Your task to perform on an android device: check the backup settings in the google photos Image 0: 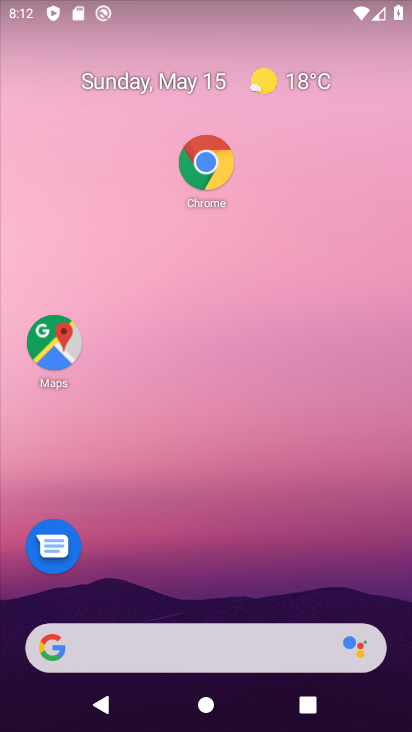
Step 0: drag from (248, 455) to (272, 161)
Your task to perform on an android device: check the backup settings in the google photos Image 1: 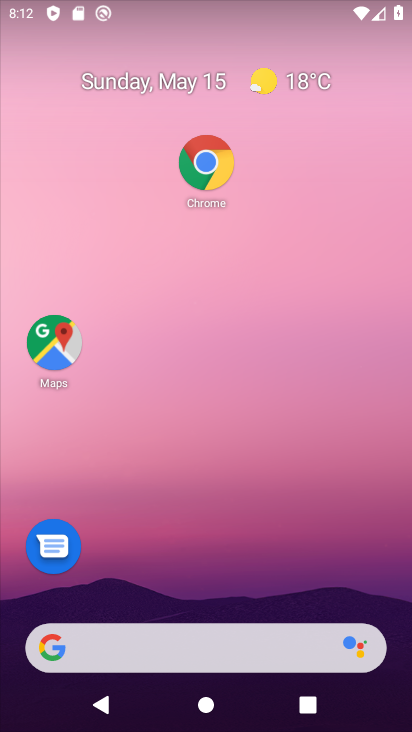
Step 1: drag from (224, 650) to (327, 216)
Your task to perform on an android device: check the backup settings in the google photos Image 2: 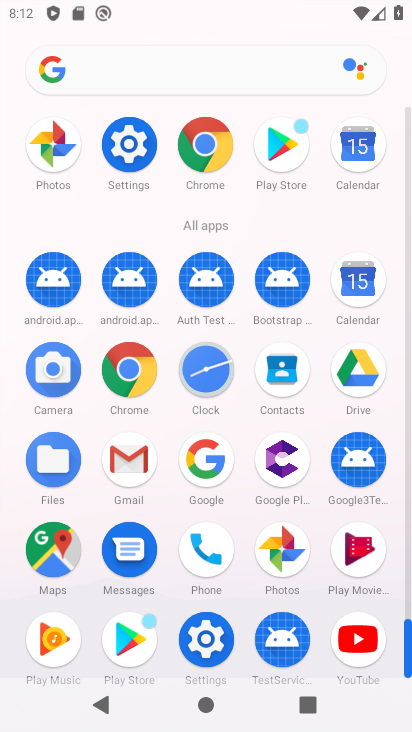
Step 2: click (277, 541)
Your task to perform on an android device: check the backup settings in the google photos Image 3: 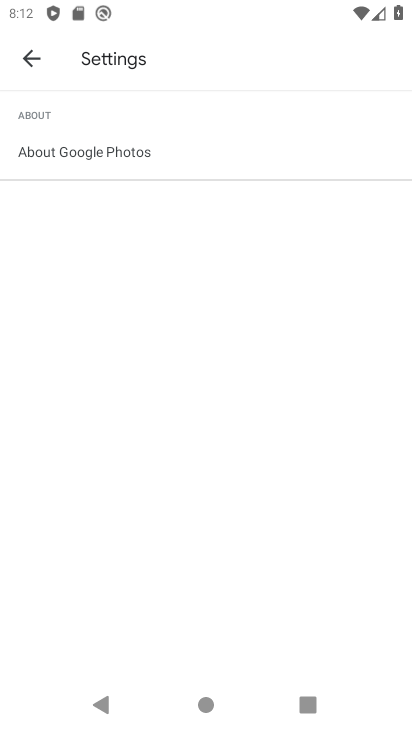
Step 3: click (30, 45)
Your task to perform on an android device: check the backup settings in the google photos Image 4: 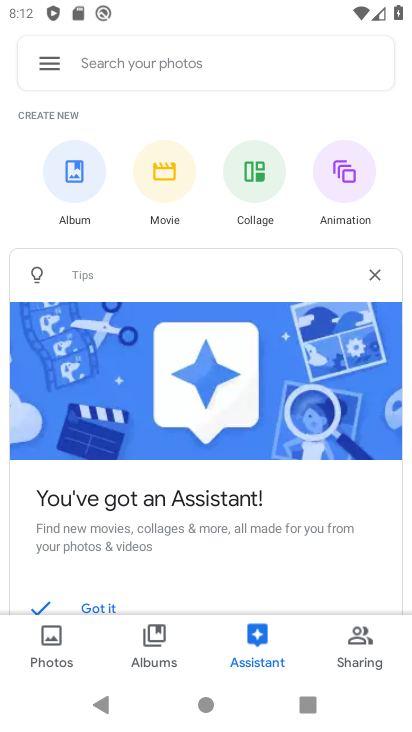
Step 4: click (50, 41)
Your task to perform on an android device: check the backup settings in the google photos Image 5: 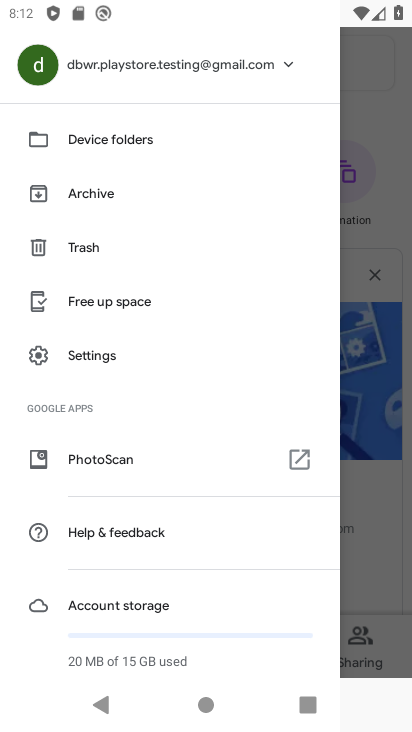
Step 5: drag from (137, 523) to (219, 200)
Your task to perform on an android device: check the backup settings in the google photos Image 6: 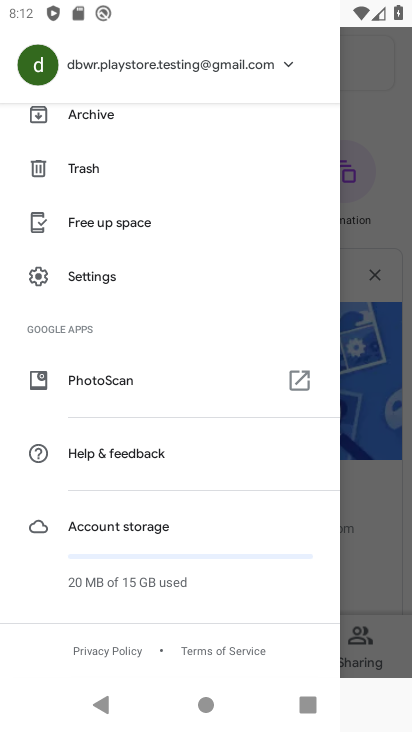
Step 6: click (103, 280)
Your task to perform on an android device: check the backup settings in the google photos Image 7: 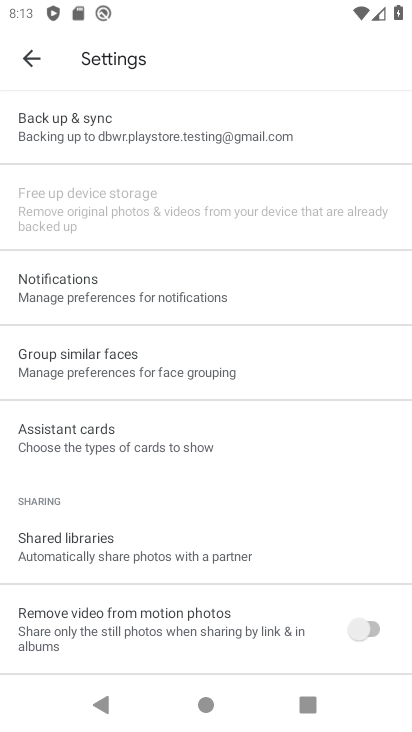
Step 7: task complete